Your task to perform on an android device: turn notification dots on Image 0: 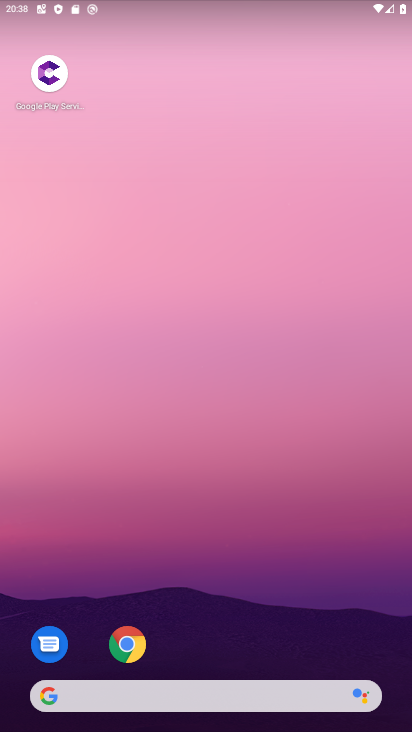
Step 0: drag from (291, 608) to (402, 156)
Your task to perform on an android device: turn notification dots on Image 1: 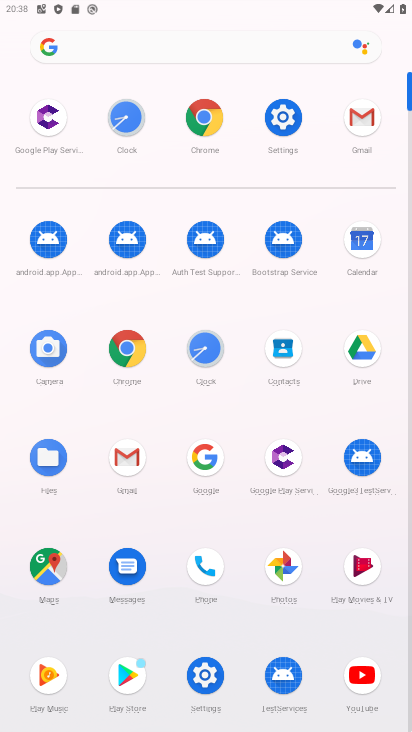
Step 1: click (290, 122)
Your task to perform on an android device: turn notification dots on Image 2: 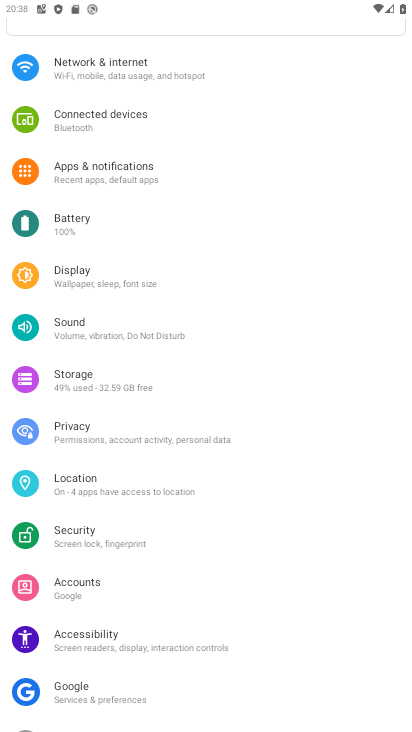
Step 2: click (109, 175)
Your task to perform on an android device: turn notification dots on Image 3: 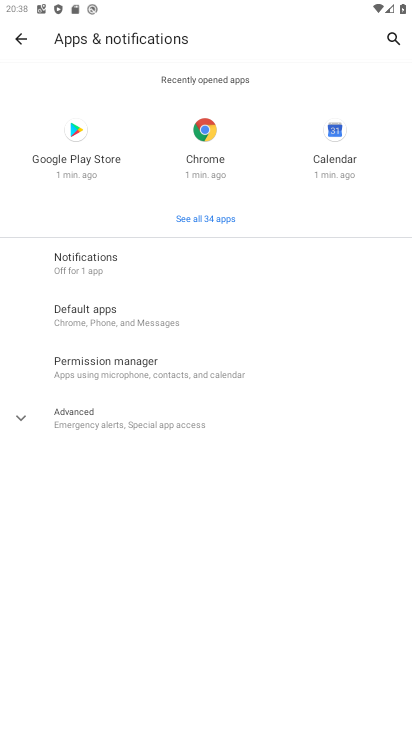
Step 3: click (105, 261)
Your task to perform on an android device: turn notification dots on Image 4: 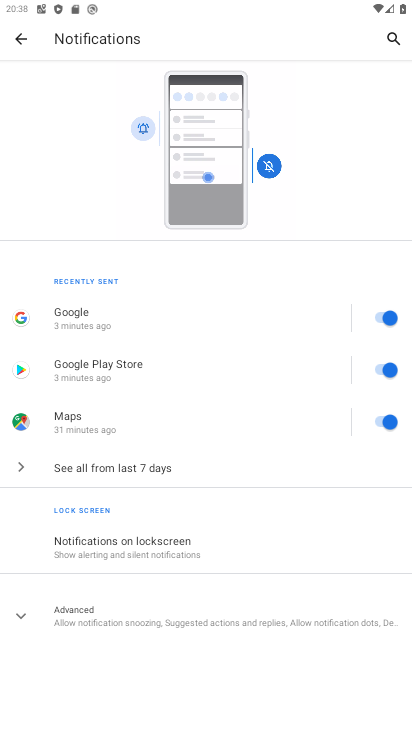
Step 4: click (162, 622)
Your task to perform on an android device: turn notification dots on Image 5: 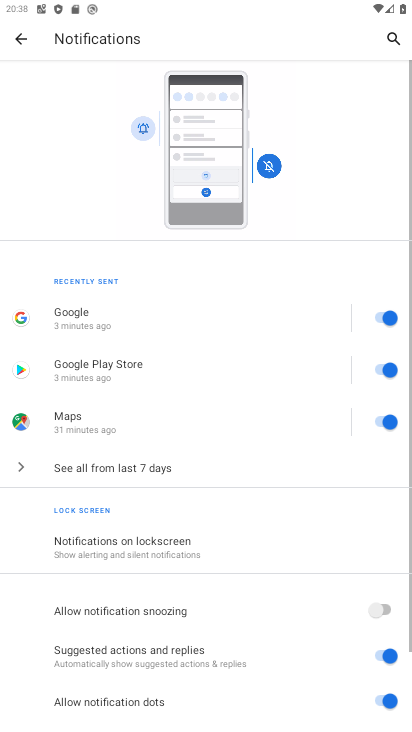
Step 5: task complete